Your task to perform on an android device: toggle data saver in the chrome app Image 0: 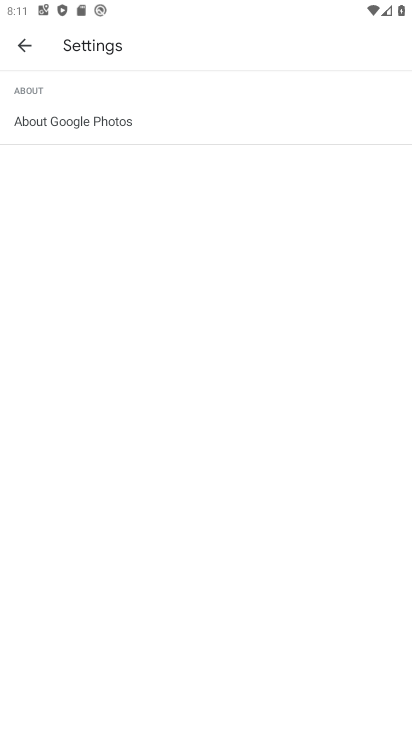
Step 0: press back button
Your task to perform on an android device: toggle data saver in the chrome app Image 1: 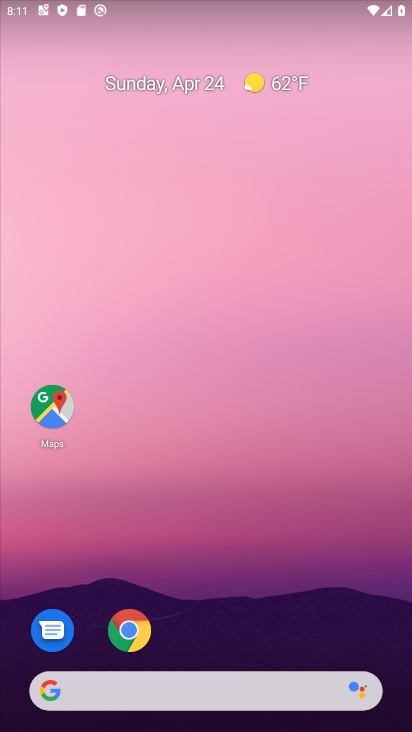
Step 1: drag from (258, 578) to (180, 22)
Your task to perform on an android device: toggle data saver in the chrome app Image 2: 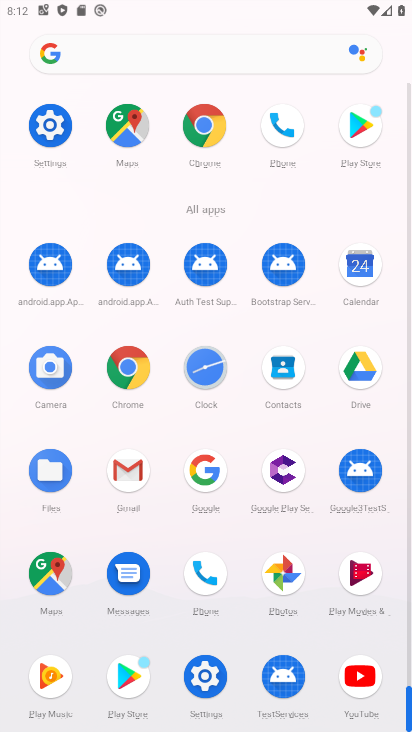
Step 2: drag from (11, 565) to (11, 430)
Your task to perform on an android device: toggle data saver in the chrome app Image 3: 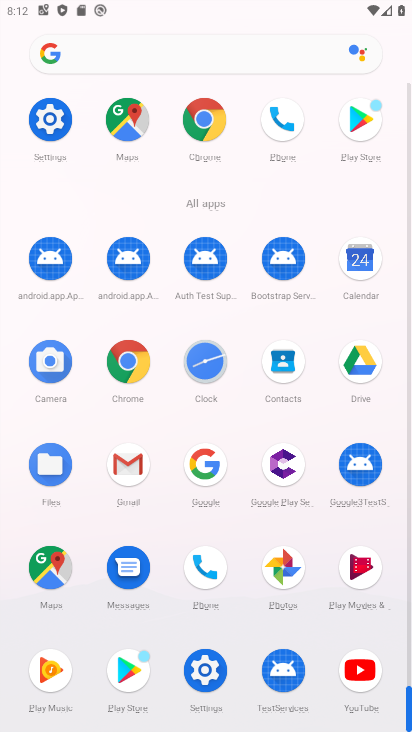
Step 3: click (128, 361)
Your task to perform on an android device: toggle data saver in the chrome app Image 4: 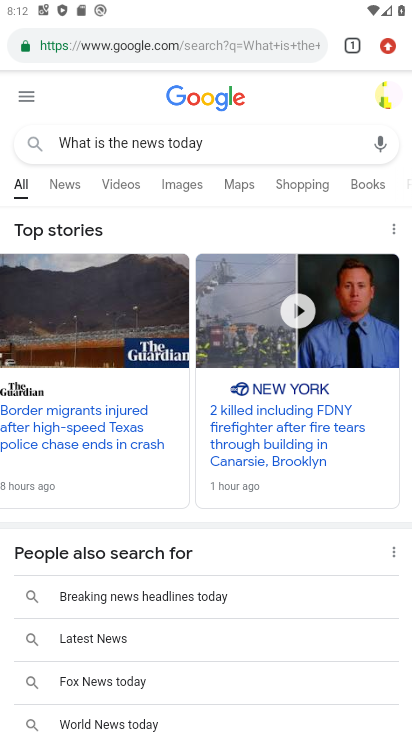
Step 4: drag from (393, 47) to (244, 558)
Your task to perform on an android device: toggle data saver in the chrome app Image 5: 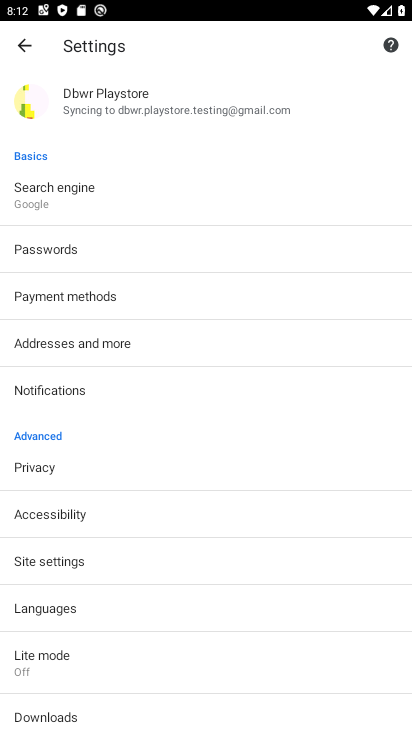
Step 5: click (91, 563)
Your task to perform on an android device: toggle data saver in the chrome app Image 6: 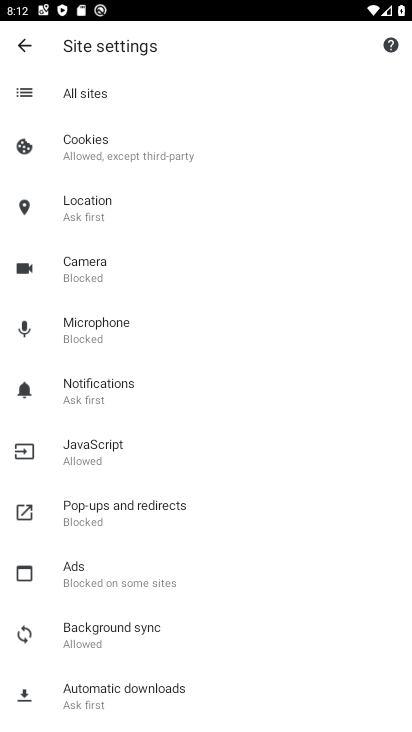
Step 6: drag from (275, 506) to (267, 127)
Your task to perform on an android device: toggle data saver in the chrome app Image 7: 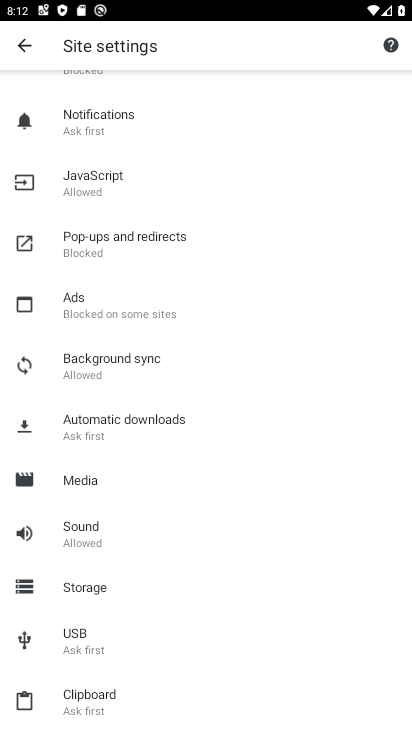
Step 7: drag from (181, 637) to (211, 289)
Your task to perform on an android device: toggle data saver in the chrome app Image 8: 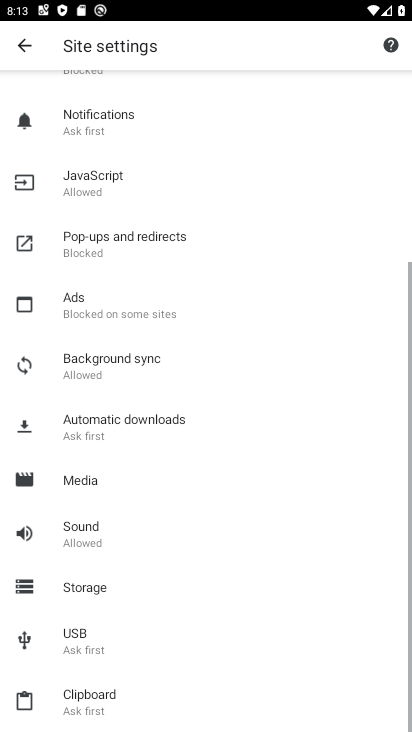
Step 8: drag from (227, 252) to (197, 586)
Your task to perform on an android device: toggle data saver in the chrome app Image 9: 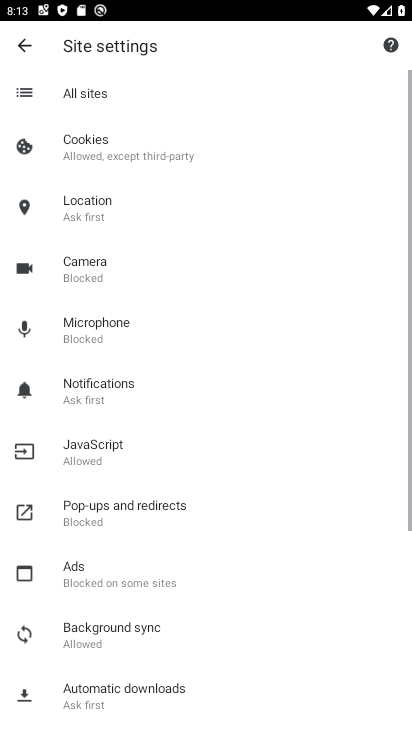
Step 9: drag from (197, 157) to (184, 581)
Your task to perform on an android device: toggle data saver in the chrome app Image 10: 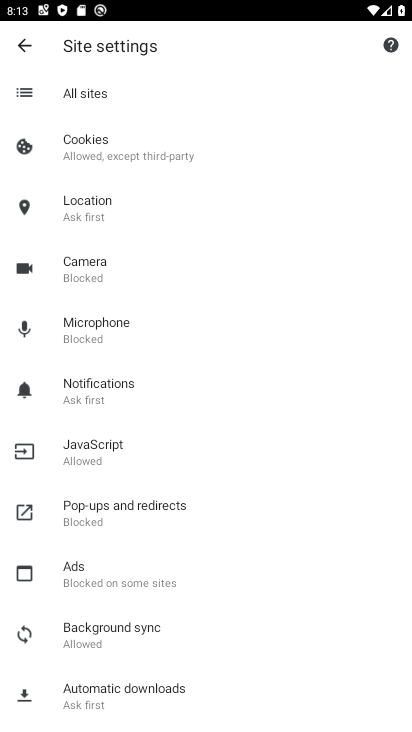
Step 10: click (20, 36)
Your task to perform on an android device: toggle data saver in the chrome app Image 11: 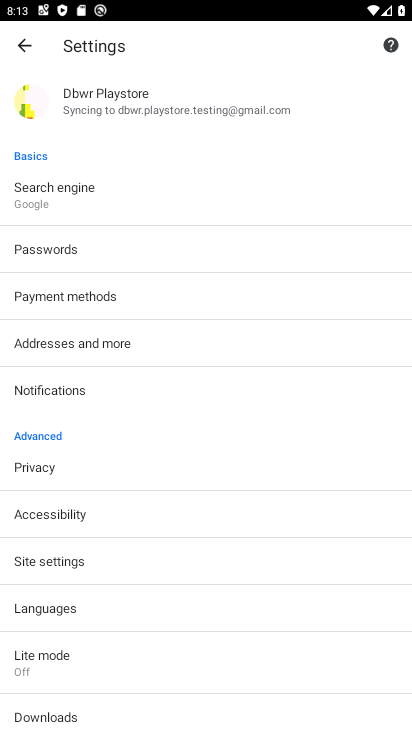
Step 11: click (65, 651)
Your task to perform on an android device: toggle data saver in the chrome app Image 12: 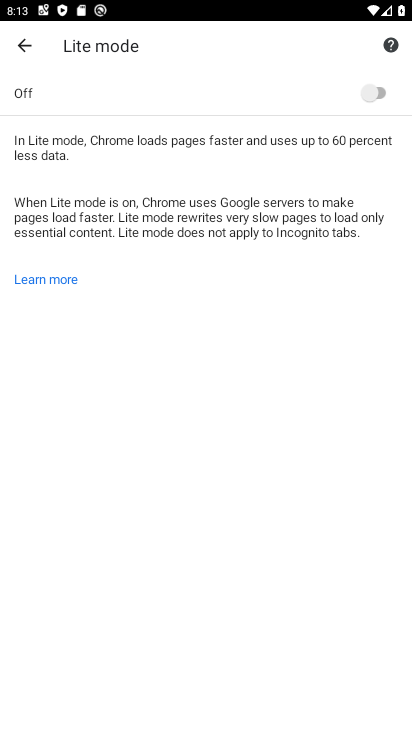
Step 12: click (379, 88)
Your task to perform on an android device: toggle data saver in the chrome app Image 13: 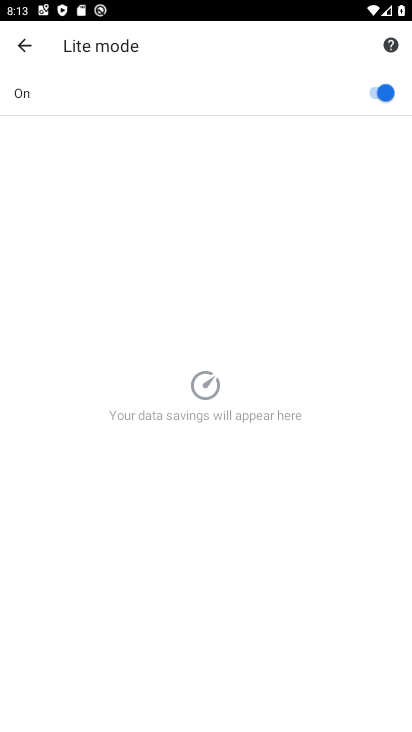
Step 13: task complete